Your task to perform on an android device: open chrome and create a bookmark for the current page Image 0: 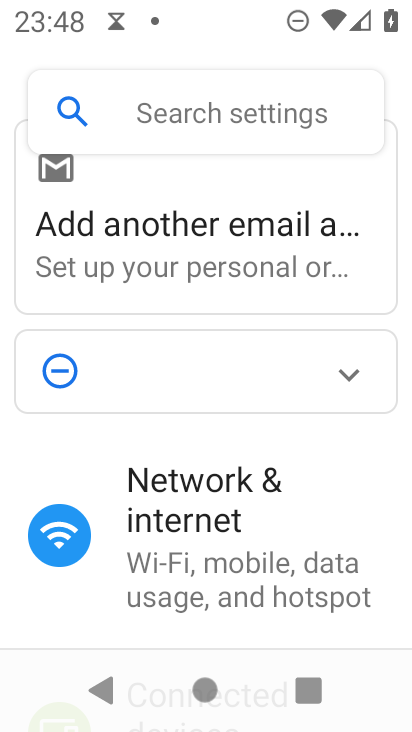
Step 0: press home button
Your task to perform on an android device: open chrome and create a bookmark for the current page Image 1: 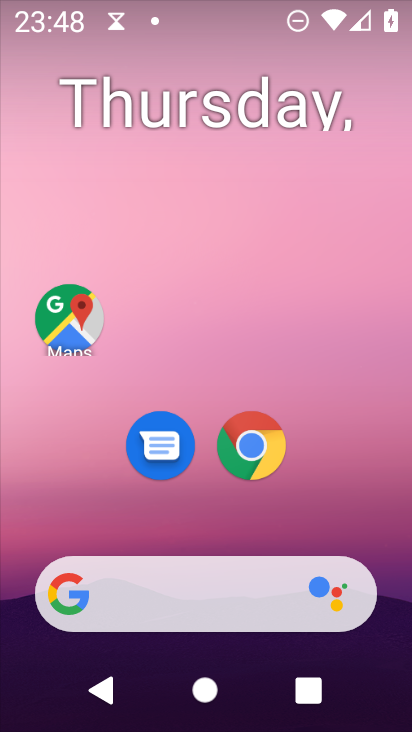
Step 1: click (253, 444)
Your task to perform on an android device: open chrome and create a bookmark for the current page Image 2: 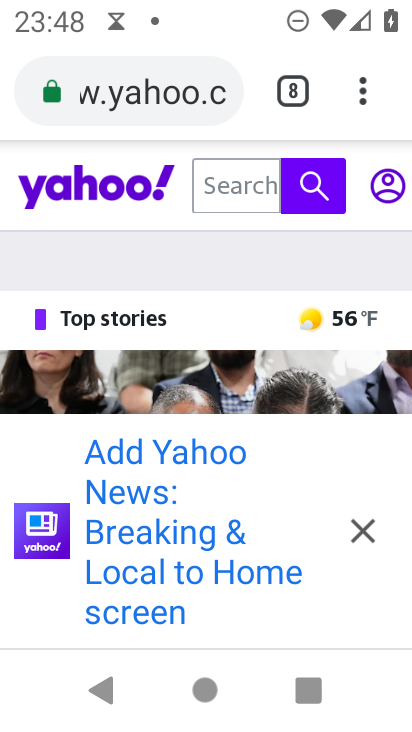
Step 2: click (361, 98)
Your task to perform on an android device: open chrome and create a bookmark for the current page Image 3: 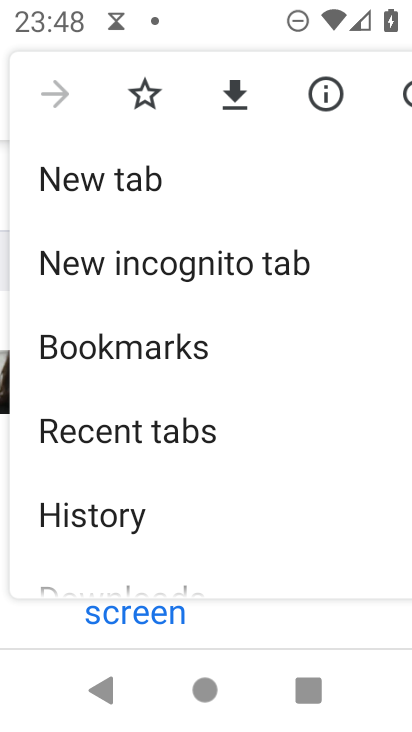
Step 3: click (139, 89)
Your task to perform on an android device: open chrome and create a bookmark for the current page Image 4: 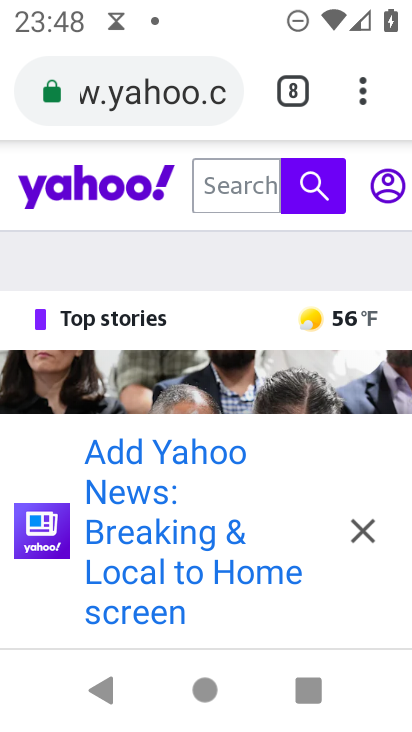
Step 4: task complete